Your task to perform on an android device: toggle wifi Image 0: 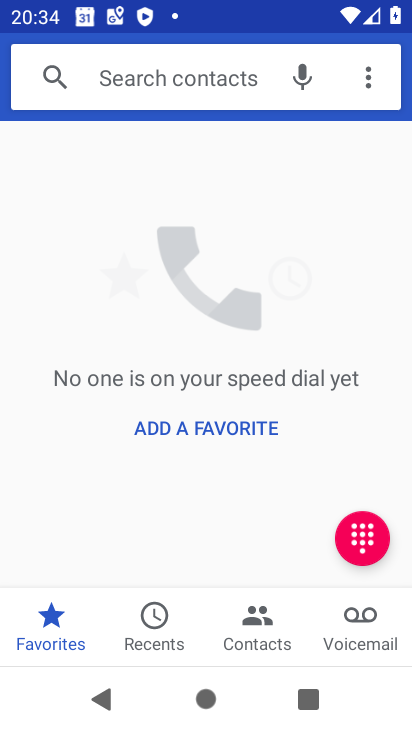
Step 0: press home button
Your task to perform on an android device: toggle wifi Image 1: 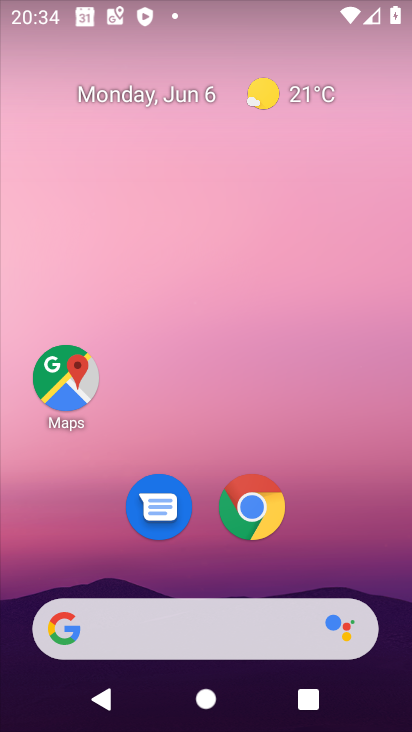
Step 1: drag from (187, 517) to (172, 0)
Your task to perform on an android device: toggle wifi Image 2: 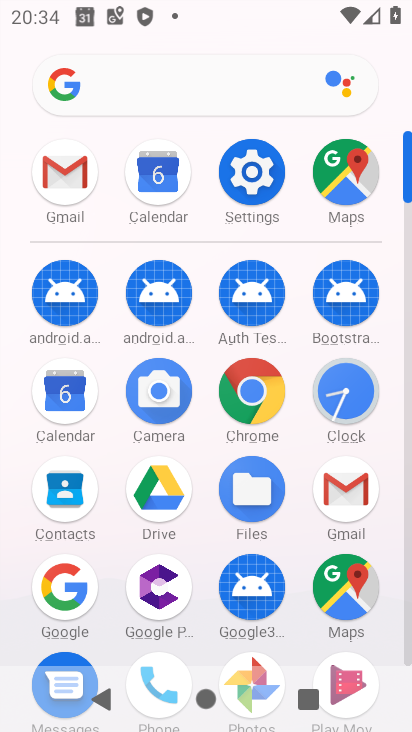
Step 2: click (247, 175)
Your task to perform on an android device: toggle wifi Image 3: 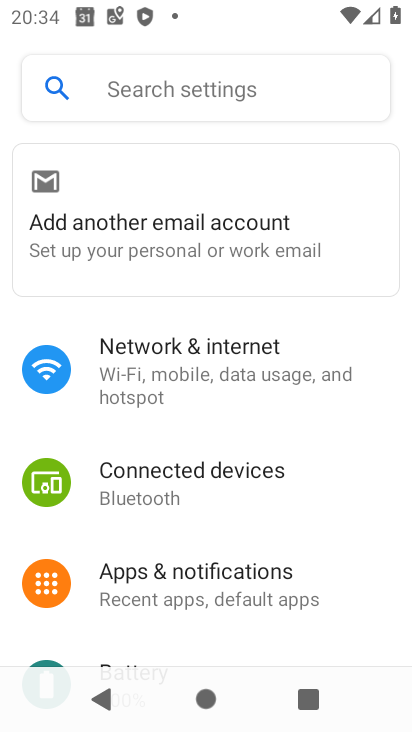
Step 3: click (194, 371)
Your task to perform on an android device: toggle wifi Image 4: 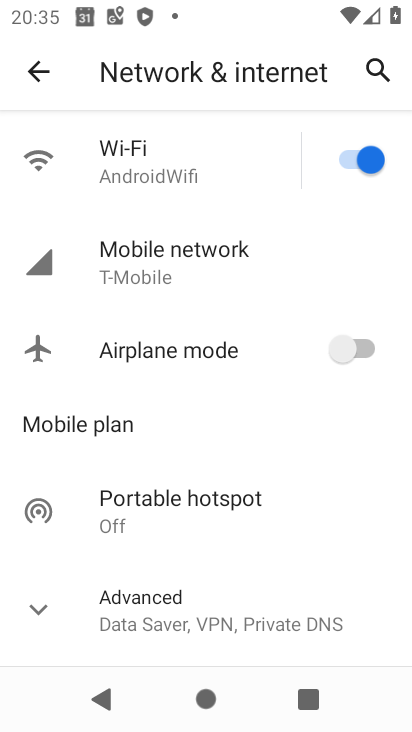
Step 4: click (334, 159)
Your task to perform on an android device: toggle wifi Image 5: 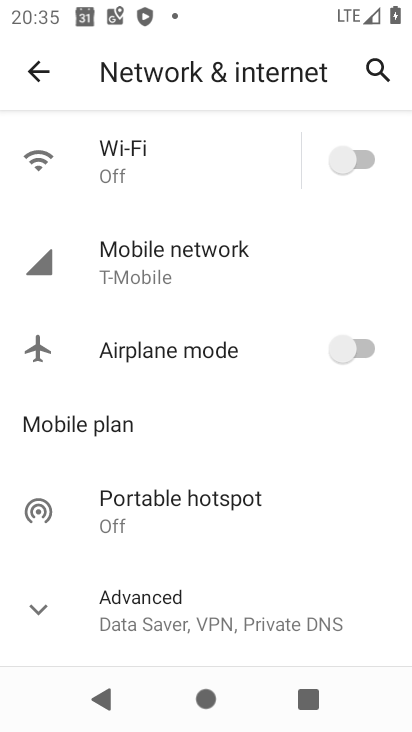
Step 5: task complete